Your task to perform on an android device: open a new tab in the chrome app Image 0: 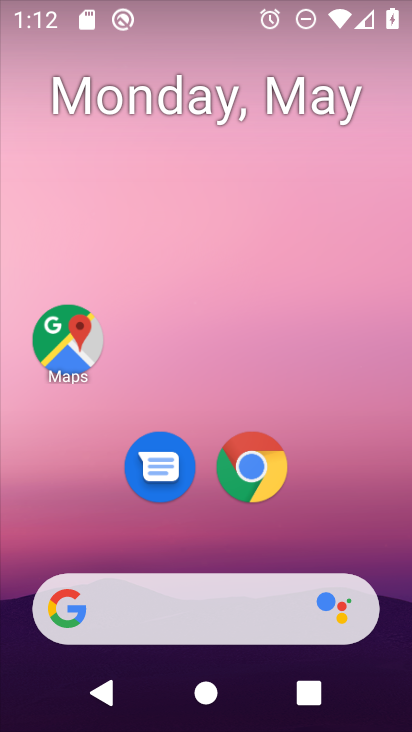
Step 0: click (251, 475)
Your task to perform on an android device: open a new tab in the chrome app Image 1: 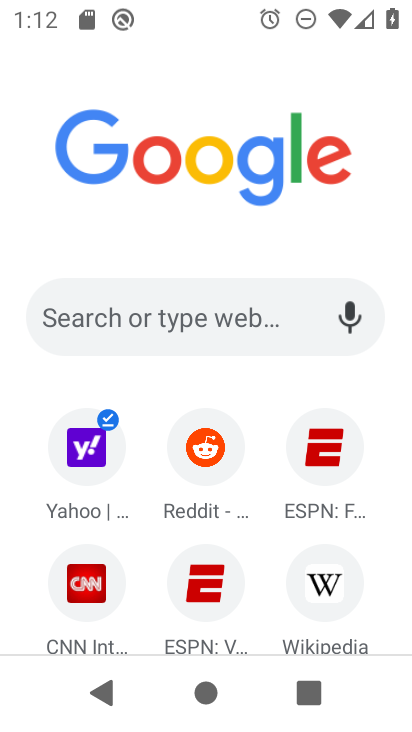
Step 1: drag from (366, 190) to (348, 447)
Your task to perform on an android device: open a new tab in the chrome app Image 2: 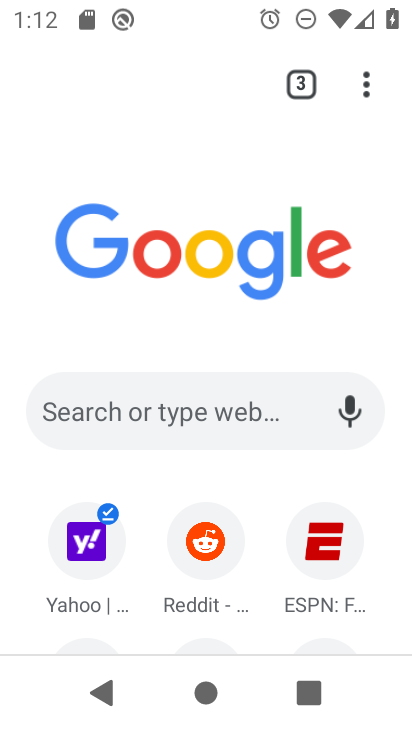
Step 2: click (365, 87)
Your task to perform on an android device: open a new tab in the chrome app Image 3: 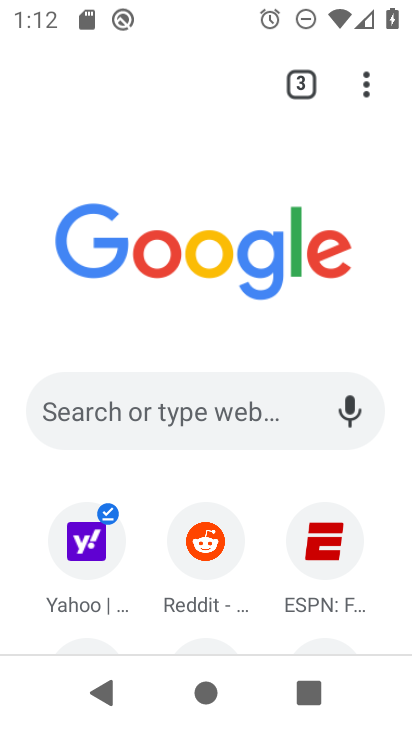
Step 3: click (366, 86)
Your task to perform on an android device: open a new tab in the chrome app Image 4: 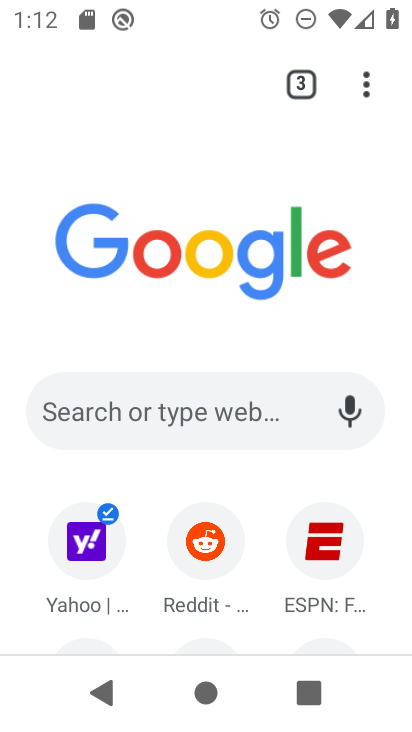
Step 4: click (366, 86)
Your task to perform on an android device: open a new tab in the chrome app Image 5: 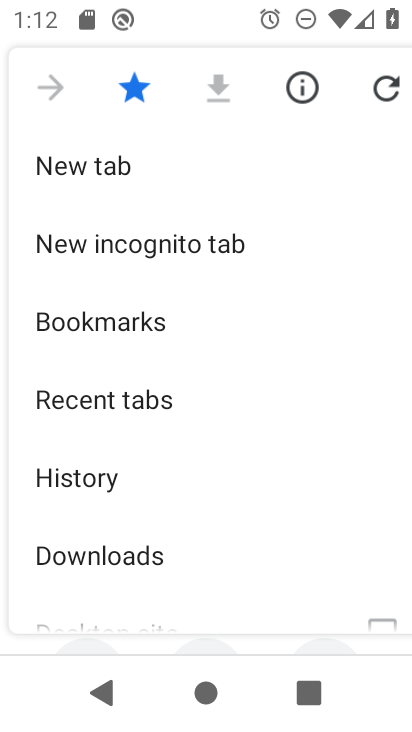
Step 5: click (62, 171)
Your task to perform on an android device: open a new tab in the chrome app Image 6: 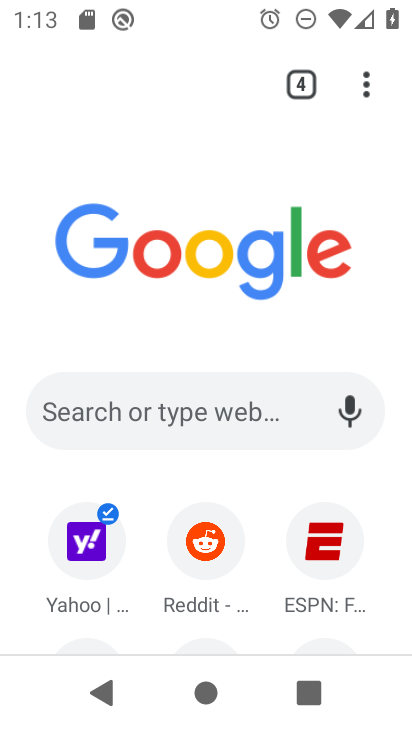
Step 6: task complete